Your task to perform on an android device: all mails in gmail Image 0: 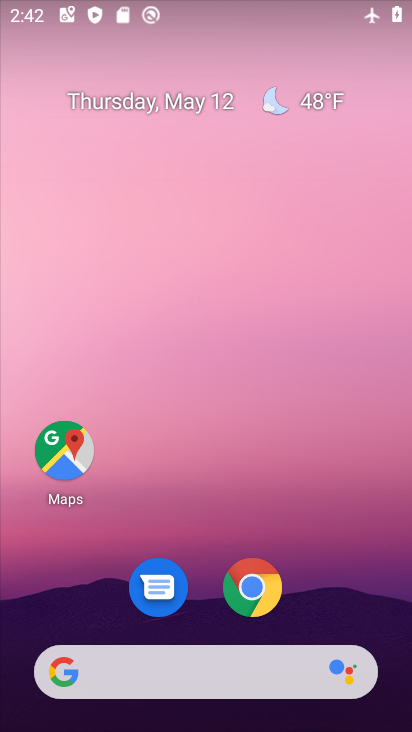
Step 0: drag from (239, 634) to (239, 52)
Your task to perform on an android device: all mails in gmail Image 1: 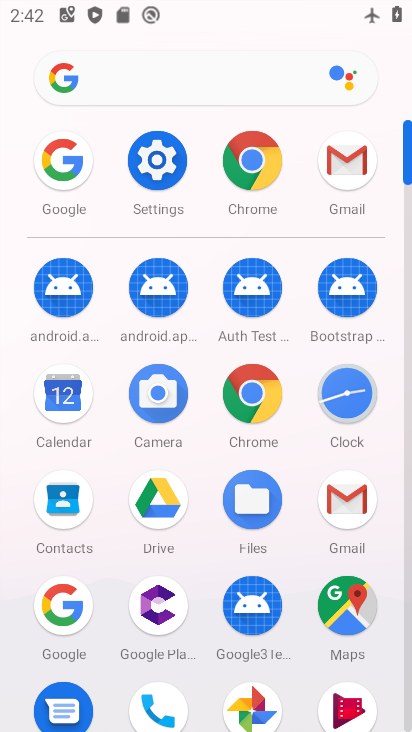
Step 1: click (335, 172)
Your task to perform on an android device: all mails in gmail Image 2: 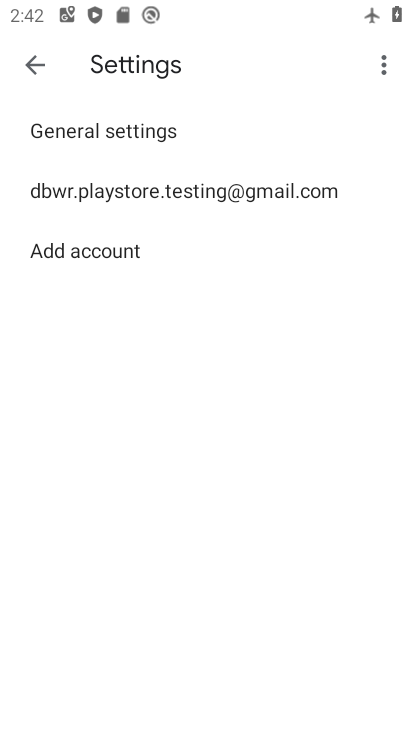
Step 2: click (44, 67)
Your task to perform on an android device: all mails in gmail Image 3: 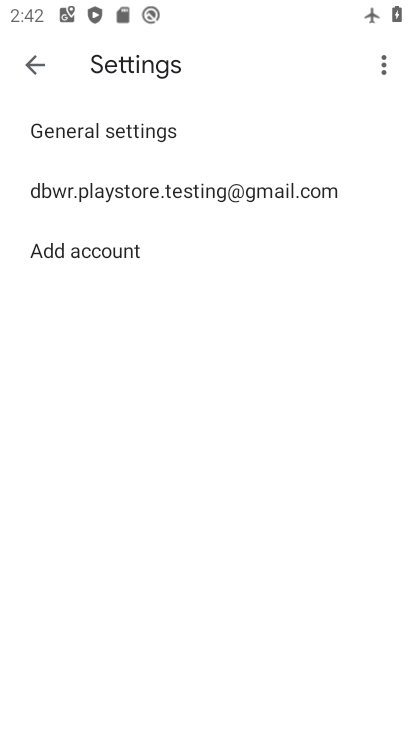
Step 3: click (40, 71)
Your task to perform on an android device: all mails in gmail Image 4: 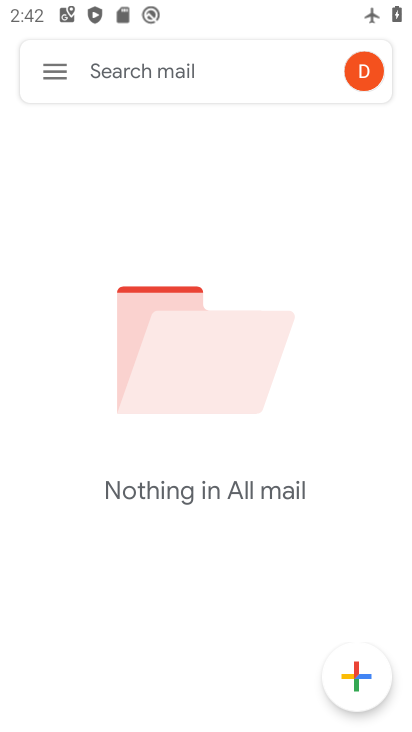
Step 4: click (53, 81)
Your task to perform on an android device: all mails in gmail Image 5: 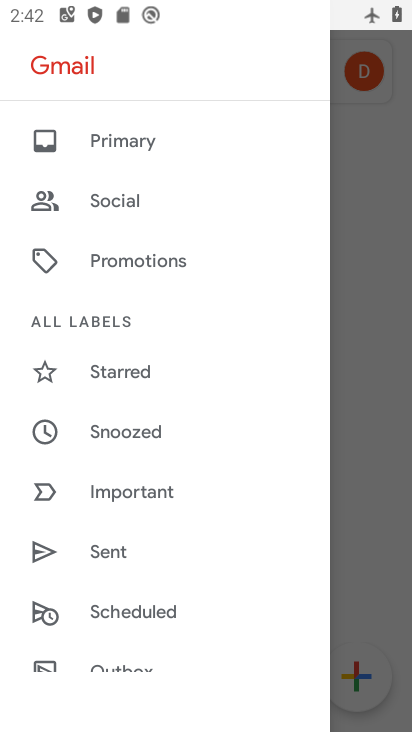
Step 5: drag from (145, 598) to (192, 196)
Your task to perform on an android device: all mails in gmail Image 6: 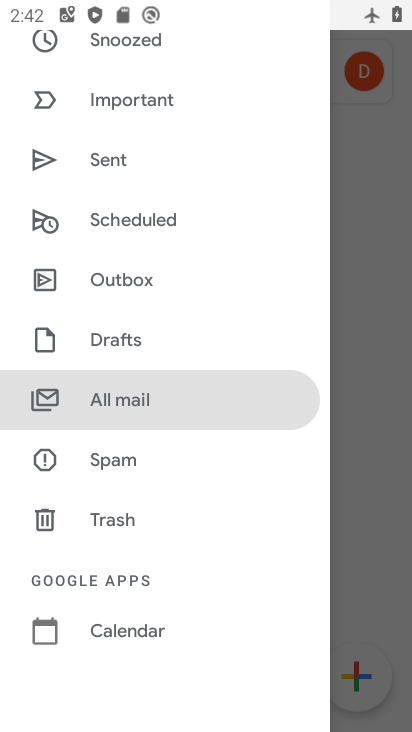
Step 6: click (155, 411)
Your task to perform on an android device: all mails in gmail Image 7: 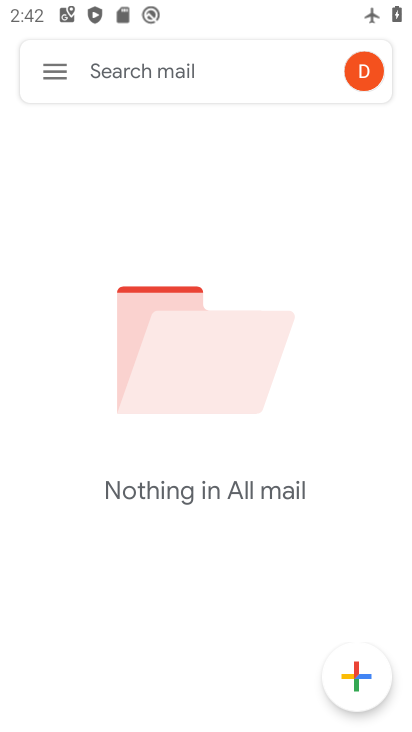
Step 7: task complete